Your task to perform on an android device: remove spam from my inbox in the gmail app Image 0: 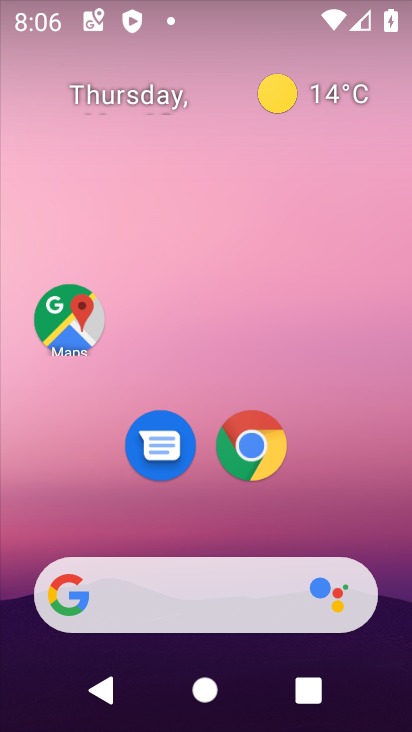
Step 0: drag from (223, 726) to (233, 192)
Your task to perform on an android device: remove spam from my inbox in the gmail app Image 1: 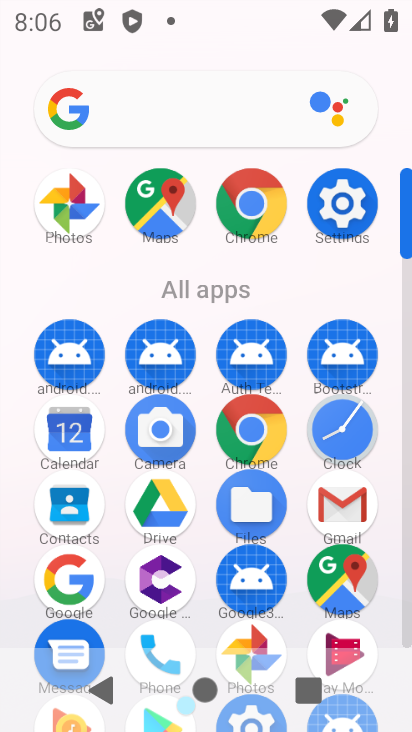
Step 1: click (346, 499)
Your task to perform on an android device: remove spam from my inbox in the gmail app Image 2: 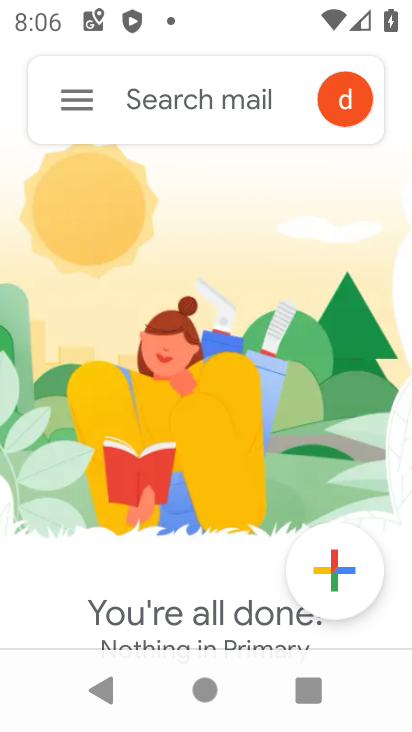
Step 2: click (85, 98)
Your task to perform on an android device: remove spam from my inbox in the gmail app Image 3: 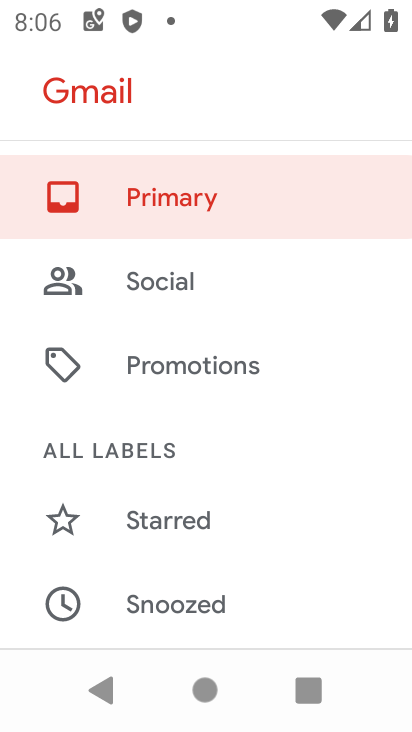
Step 3: drag from (143, 582) to (149, 249)
Your task to perform on an android device: remove spam from my inbox in the gmail app Image 4: 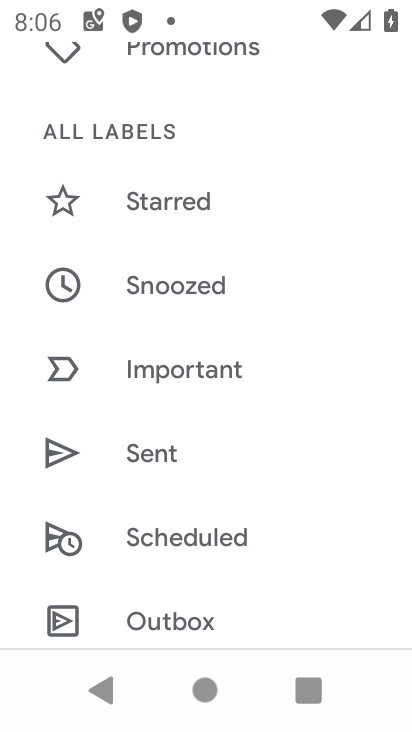
Step 4: drag from (162, 595) to (162, 231)
Your task to perform on an android device: remove spam from my inbox in the gmail app Image 5: 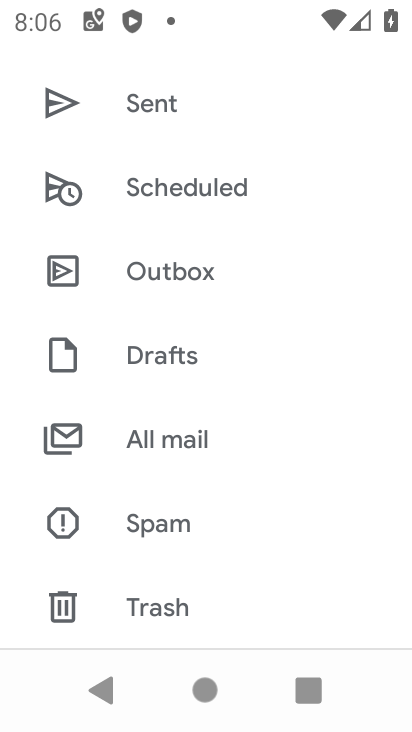
Step 5: drag from (171, 579) to (172, 329)
Your task to perform on an android device: remove spam from my inbox in the gmail app Image 6: 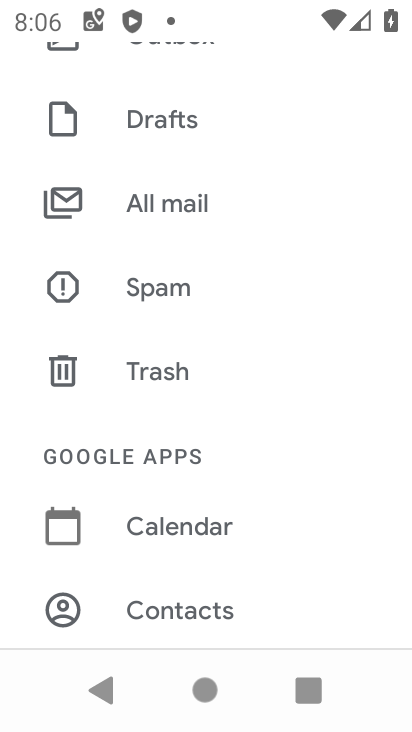
Step 6: click (176, 292)
Your task to perform on an android device: remove spam from my inbox in the gmail app Image 7: 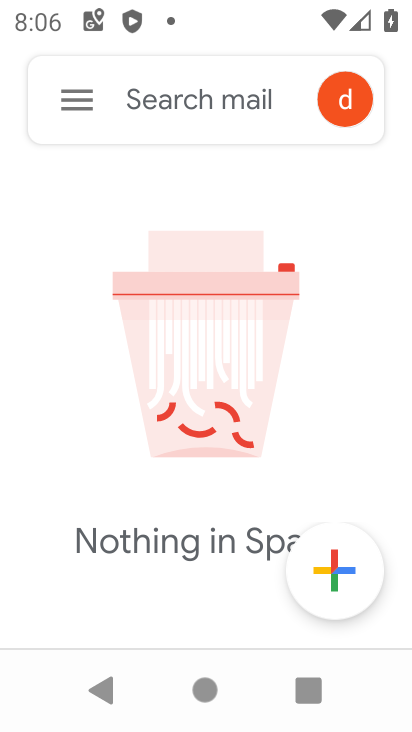
Step 7: click (84, 92)
Your task to perform on an android device: remove spam from my inbox in the gmail app Image 8: 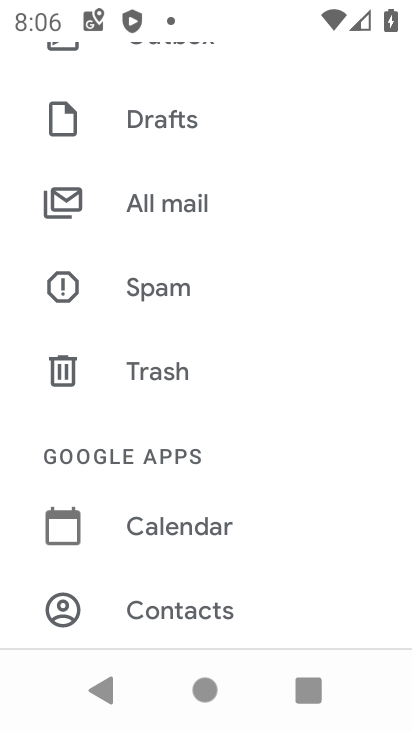
Step 8: drag from (183, 128) to (209, 526)
Your task to perform on an android device: remove spam from my inbox in the gmail app Image 9: 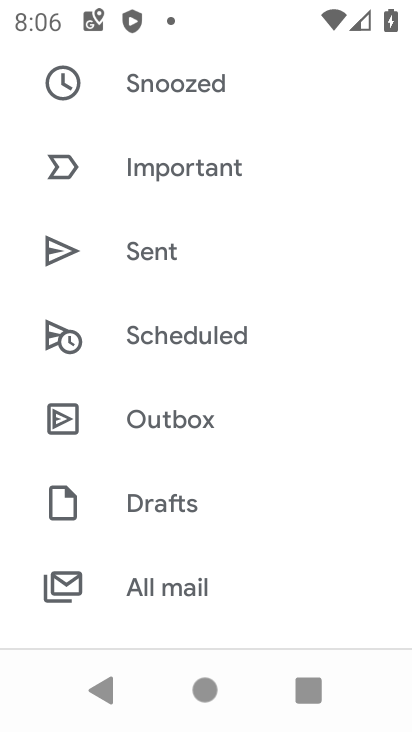
Step 9: drag from (197, 183) to (229, 522)
Your task to perform on an android device: remove spam from my inbox in the gmail app Image 10: 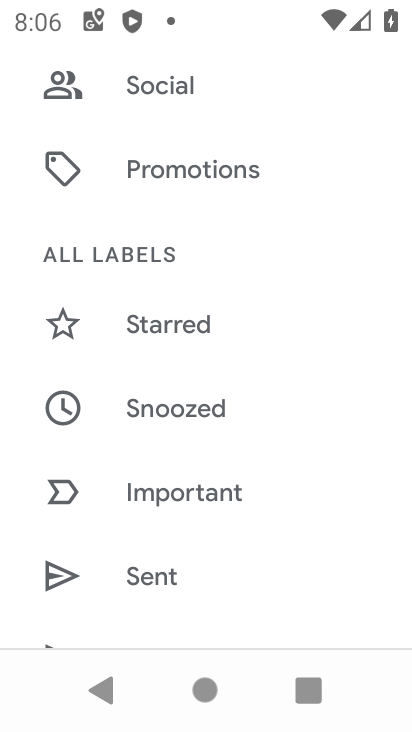
Step 10: drag from (185, 160) to (183, 445)
Your task to perform on an android device: remove spam from my inbox in the gmail app Image 11: 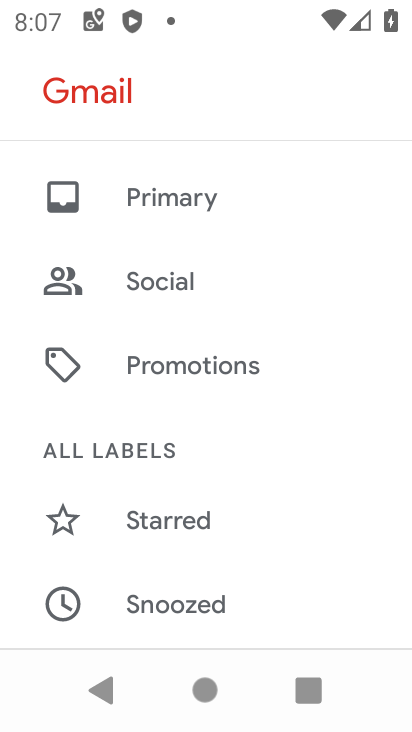
Step 11: click (166, 191)
Your task to perform on an android device: remove spam from my inbox in the gmail app Image 12: 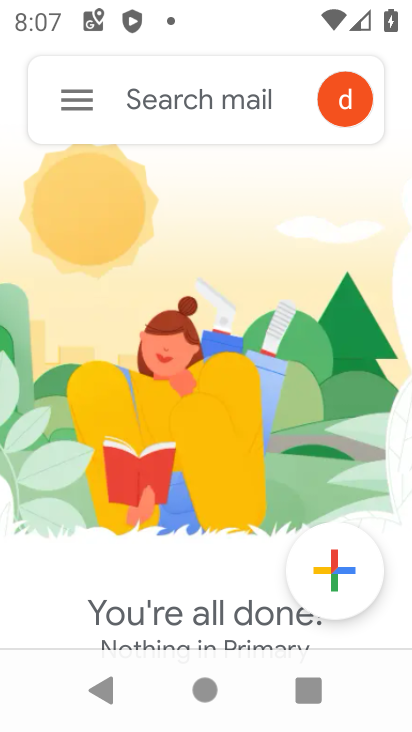
Step 12: task complete